Your task to perform on an android device: turn on wifi Image 0: 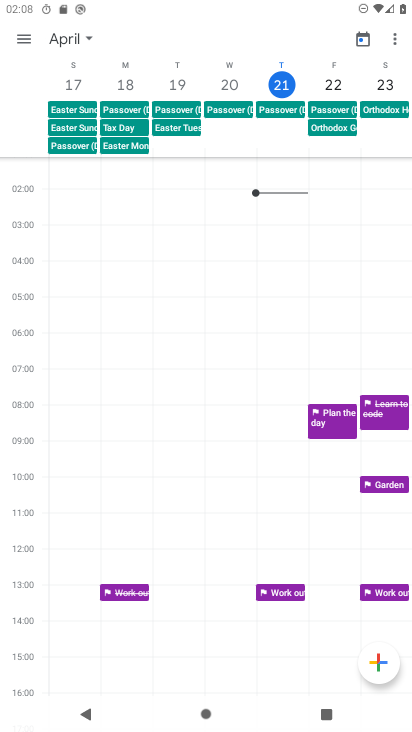
Step 0: press home button
Your task to perform on an android device: turn on wifi Image 1: 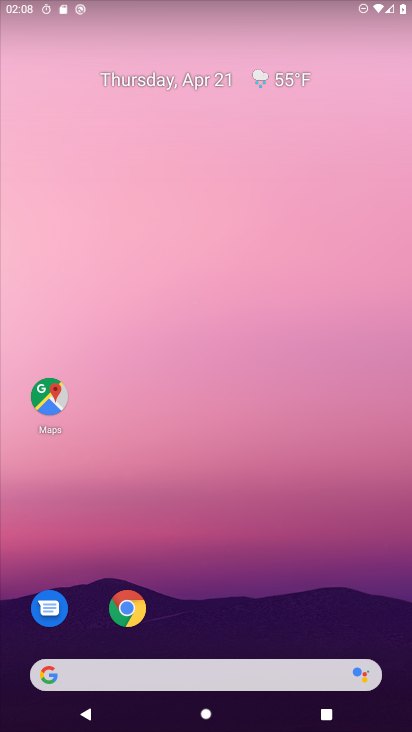
Step 1: drag from (201, 607) to (214, 68)
Your task to perform on an android device: turn on wifi Image 2: 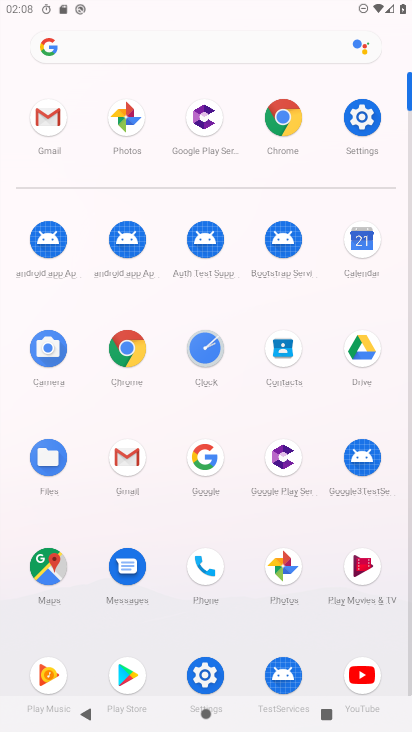
Step 2: click (366, 124)
Your task to perform on an android device: turn on wifi Image 3: 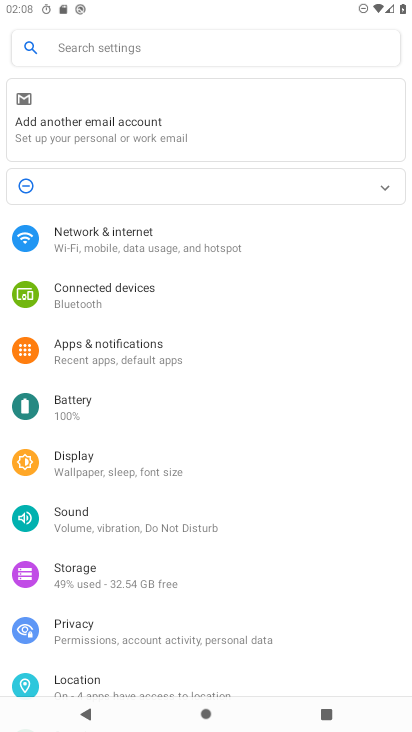
Step 3: click (94, 236)
Your task to perform on an android device: turn on wifi Image 4: 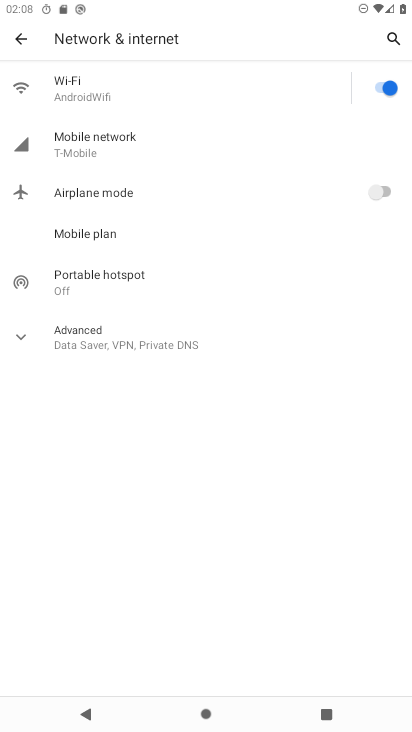
Step 4: task complete